Your task to perform on an android device: Go to notification settings Image 0: 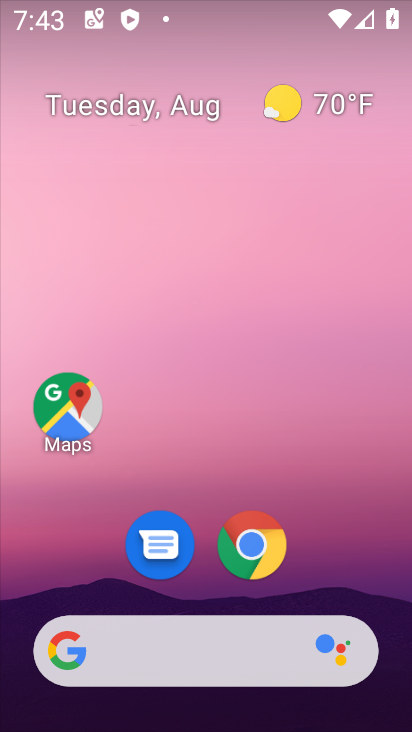
Step 0: drag from (194, 653) to (191, 99)
Your task to perform on an android device: Go to notification settings Image 1: 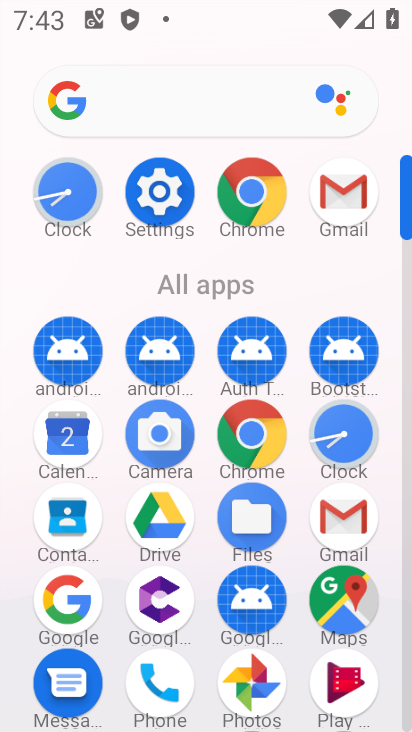
Step 1: click (181, 216)
Your task to perform on an android device: Go to notification settings Image 2: 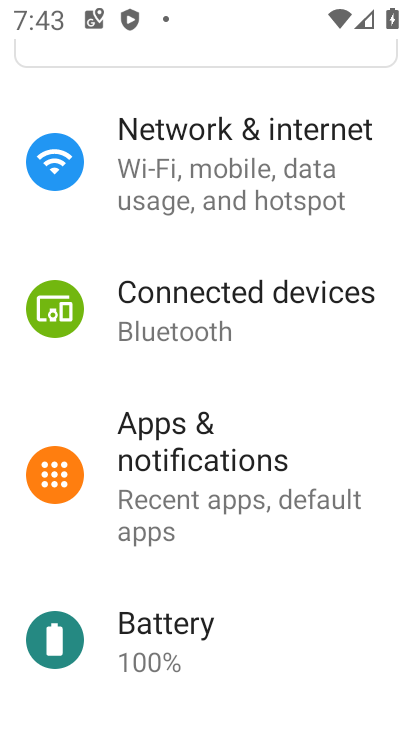
Step 2: click (243, 485)
Your task to perform on an android device: Go to notification settings Image 3: 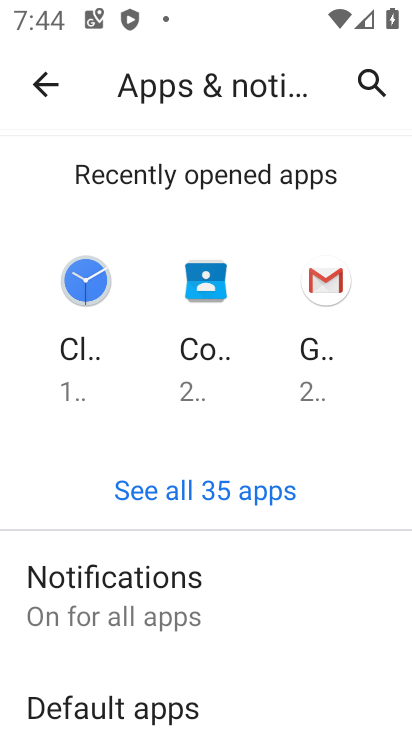
Step 3: click (202, 586)
Your task to perform on an android device: Go to notification settings Image 4: 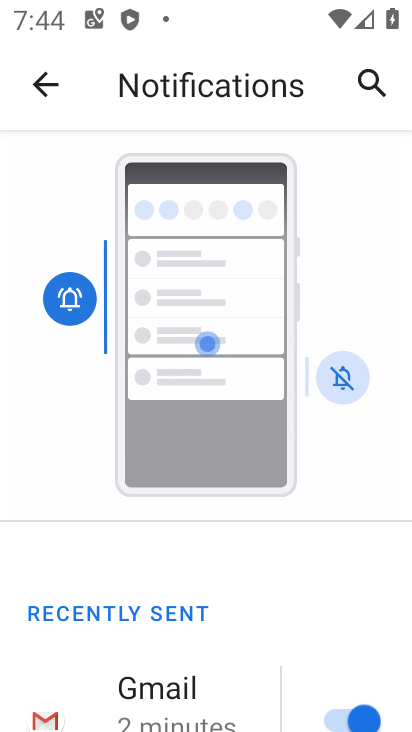
Step 4: task complete